Your task to perform on an android device: turn off priority inbox in the gmail app Image 0: 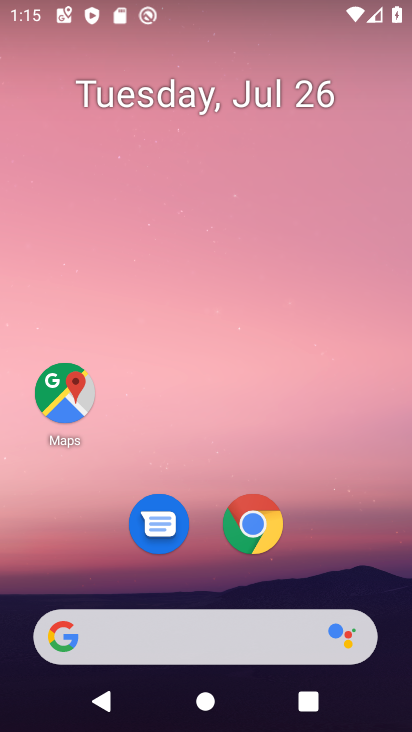
Step 0: drag from (317, 498) to (272, 14)
Your task to perform on an android device: turn off priority inbox in the gmail app Image 1: 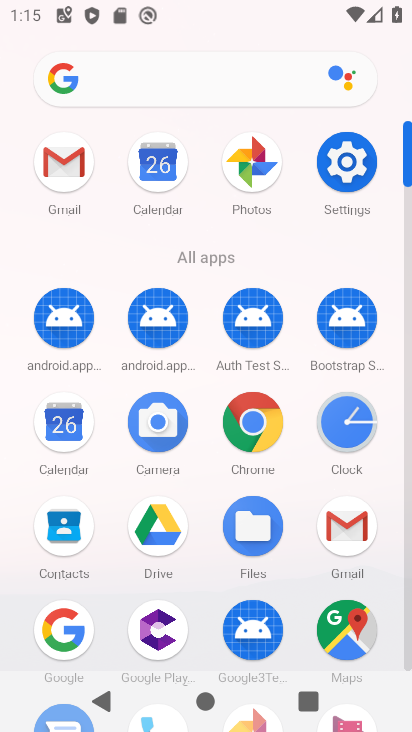
Step 1: click (77, 157)
Your task to perform on an android device: turn off priority inbox in the gmail app Image 2: 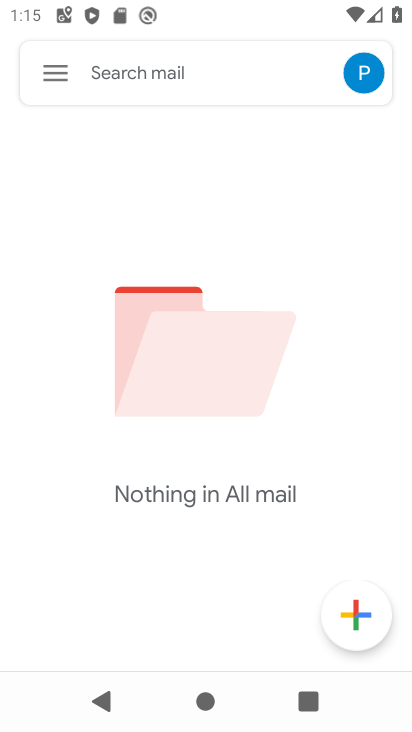
Step 2: click (53, 69)
Your task to perform on an android device: turn off priority inbox in the gmail app Image 3: 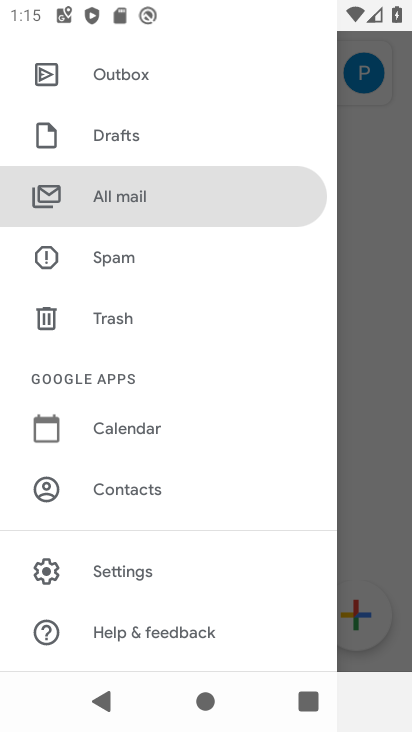
Step 3: click (123, 567)
Your task to perform on an android device: turn off priority inbox in the gmail app Image 4: 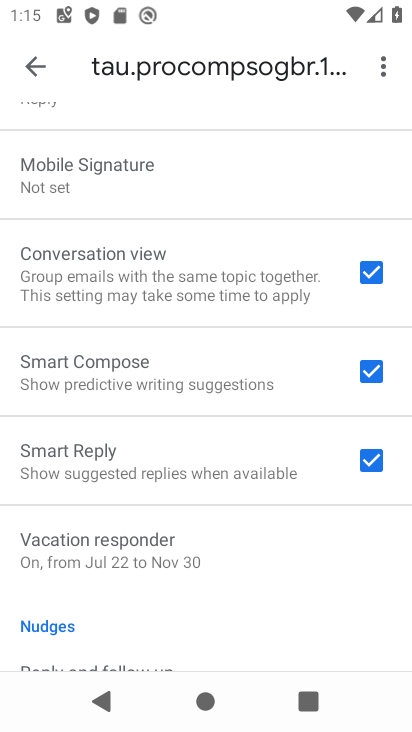
Step 4: drag from (194, 167) to (166, 572)
Your task to perform on an android device: turn off priority inbox in the gmail app Image 5: 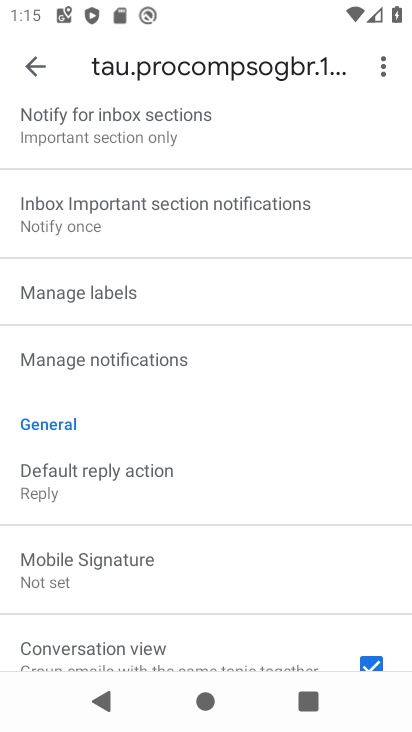
Step 5: drag from (174, 235) to (193, 588)
Your task to perform on an android device: turn off priority inbox in the gmail app Image 6: 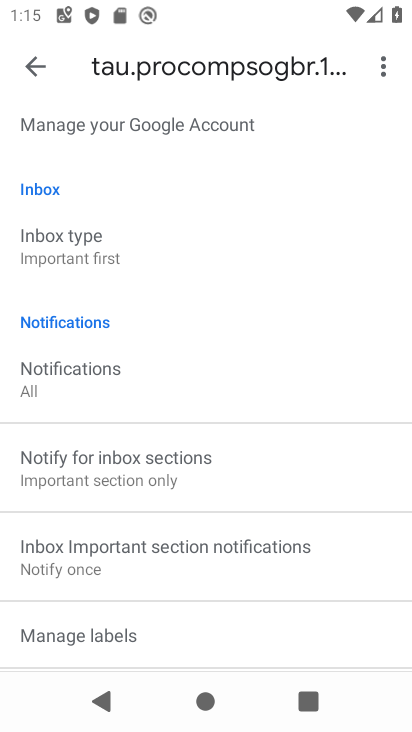
Step 6: click (88, 241)
Your task to perform on an android device: turn off priority inbox in the gmail app Image 7: 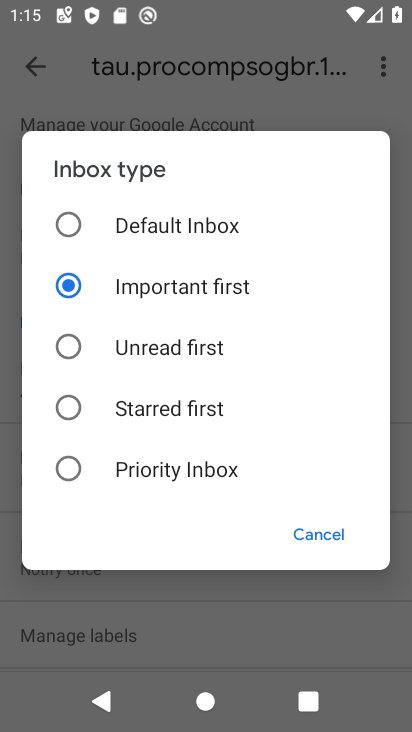
Step 7: click (70, 218)
Your task to perform on an android device: turn off priority inbox in the gmail app Image 8: 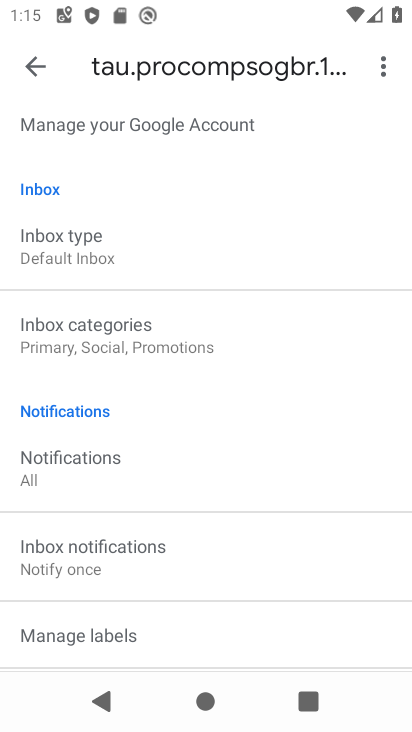
Step 8: task complete